Your task to perform on an android device: see sites visited before in the chrome app Image 0: 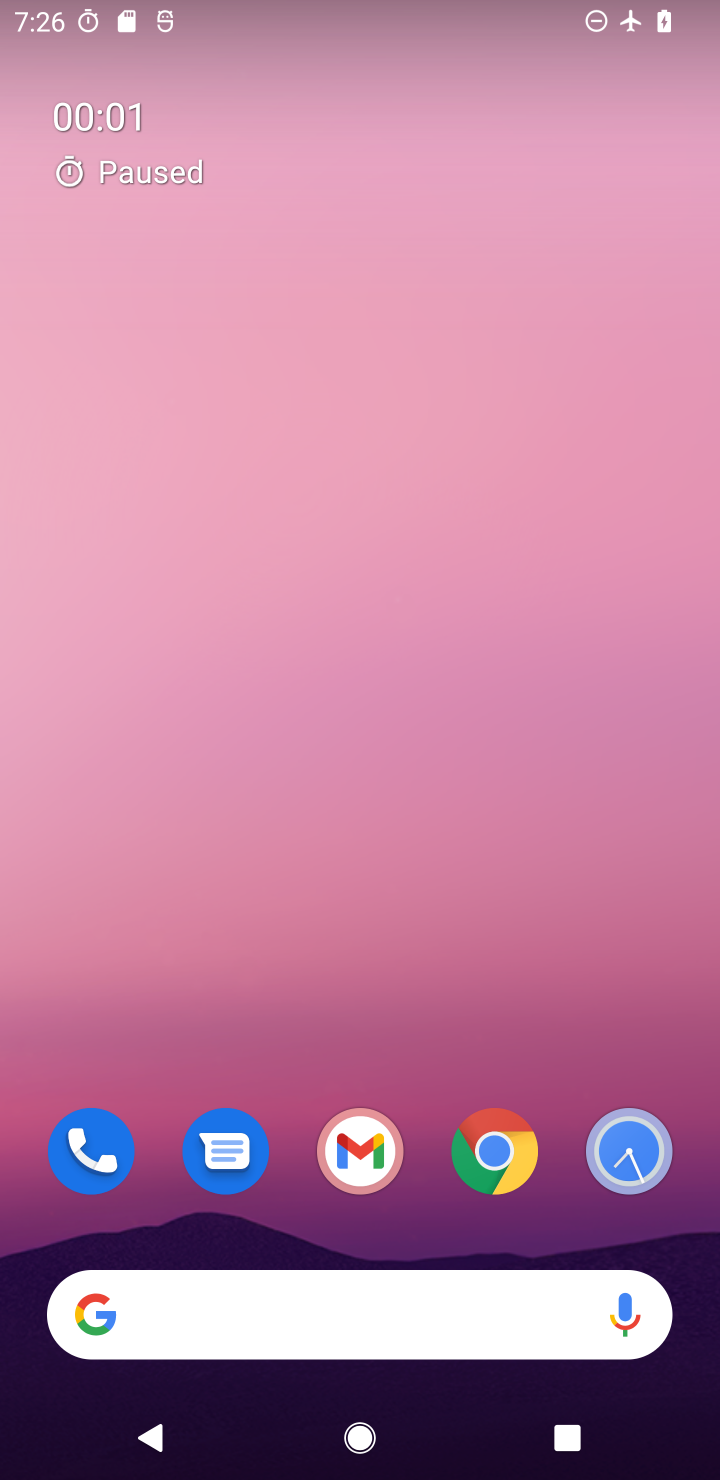
Step 0: drag from (524, 1057) to (360, 29)
Your task to perform on an android device: see sites visited before in the chrome app Image 1: 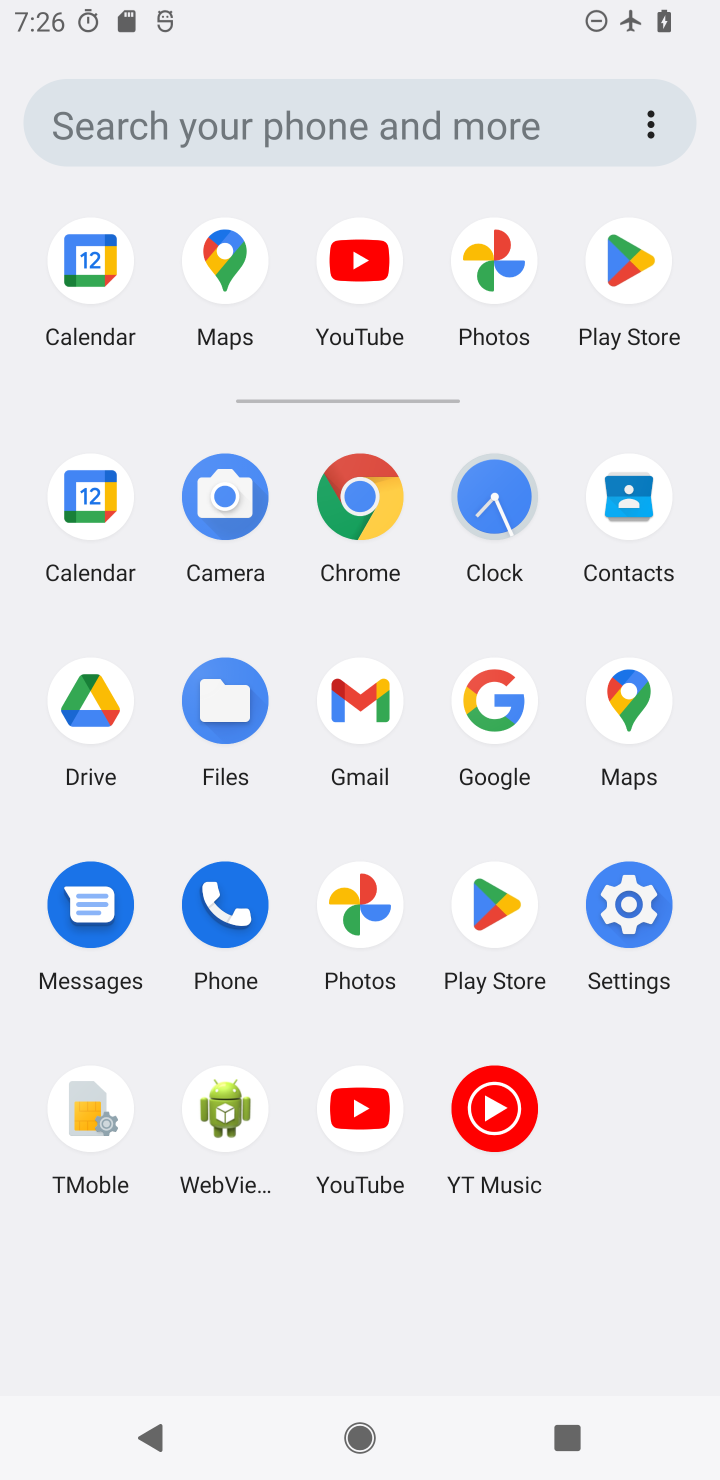
Step 1: click (354, 492)
Your task to perform on an android device: see sites visited before in the chrome app Image 2: 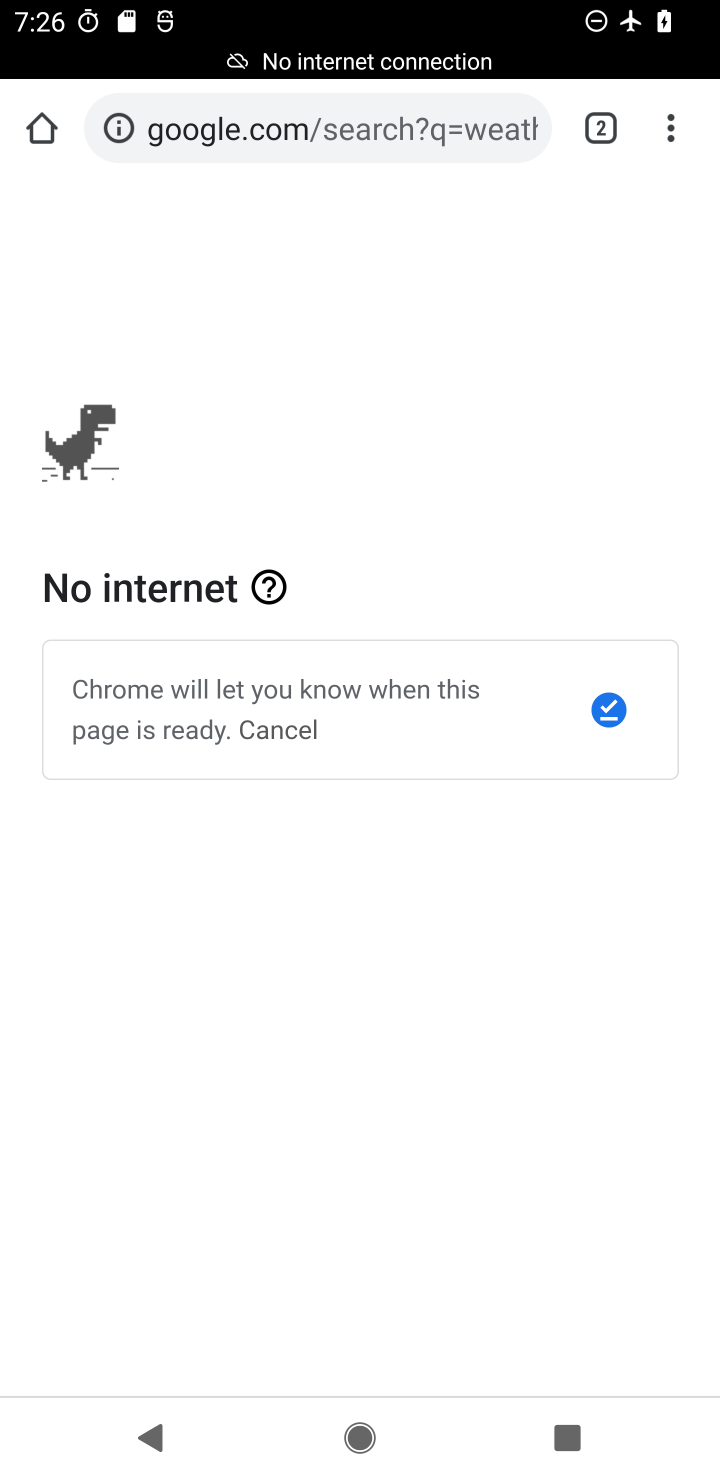
Step 2: drag from (665, 128) to (422, 501)
Your task to perform on an android device: see sites visited before in the chrome app Image 3: 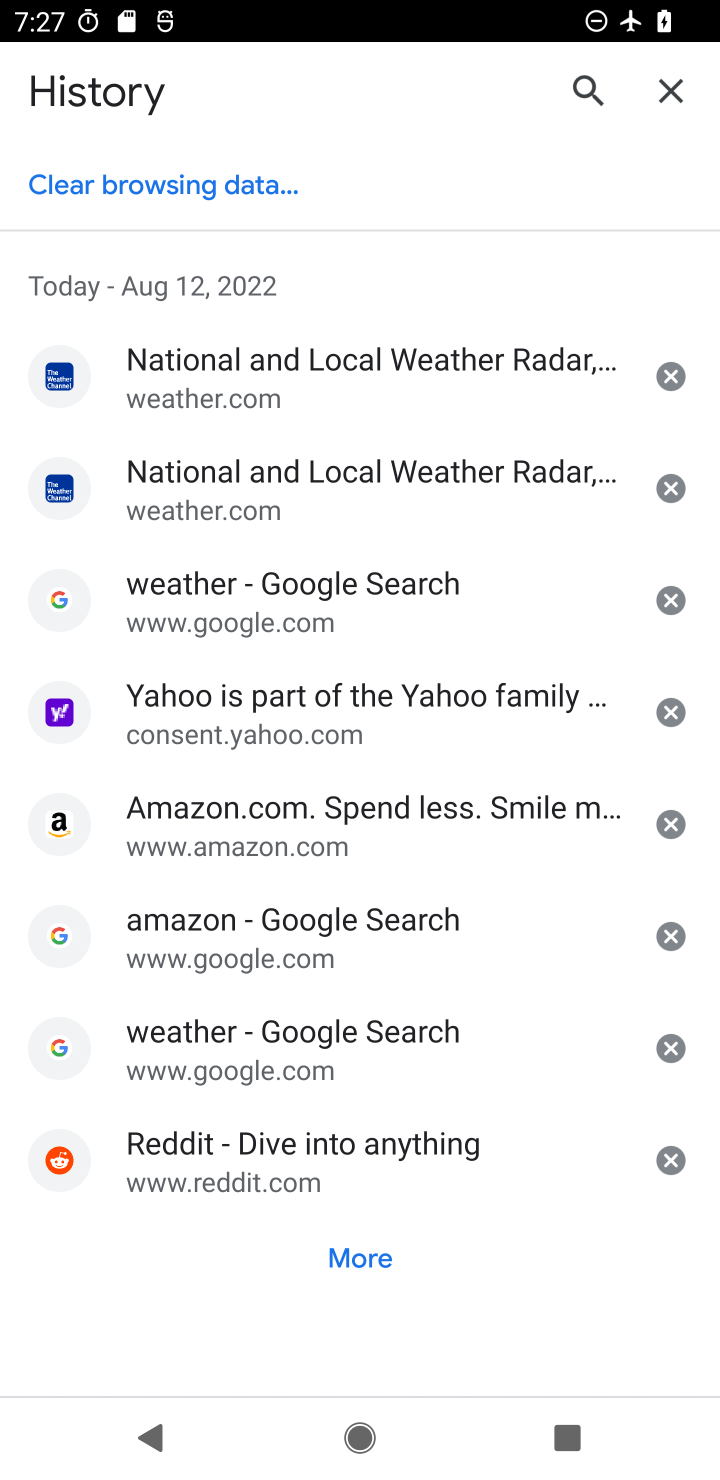
Step 3: click (275, 369)
Your task to perform on an android device: see sites visited before in the chrome app Image 4: 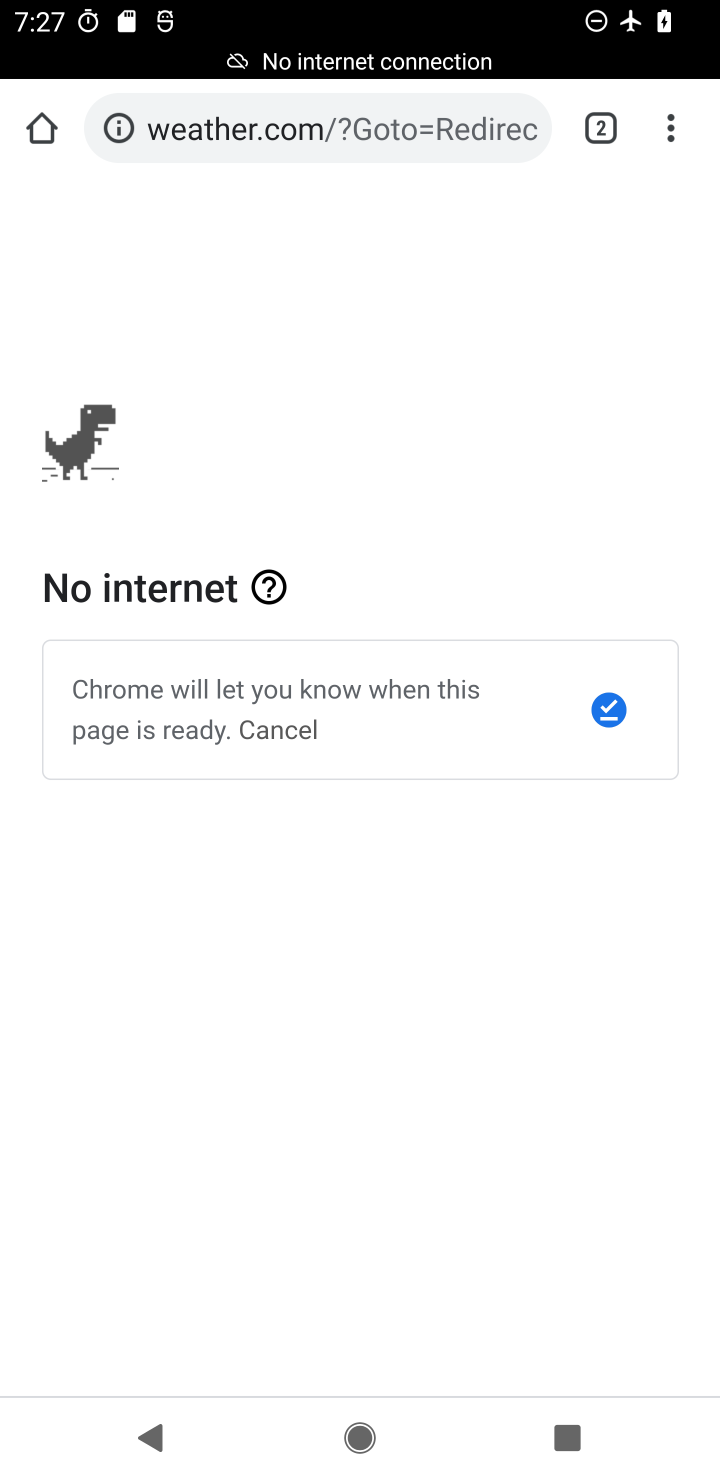
Step 4: task complete